Your task to perform on an android device: Open Chrome and go to the settings page Image 0: 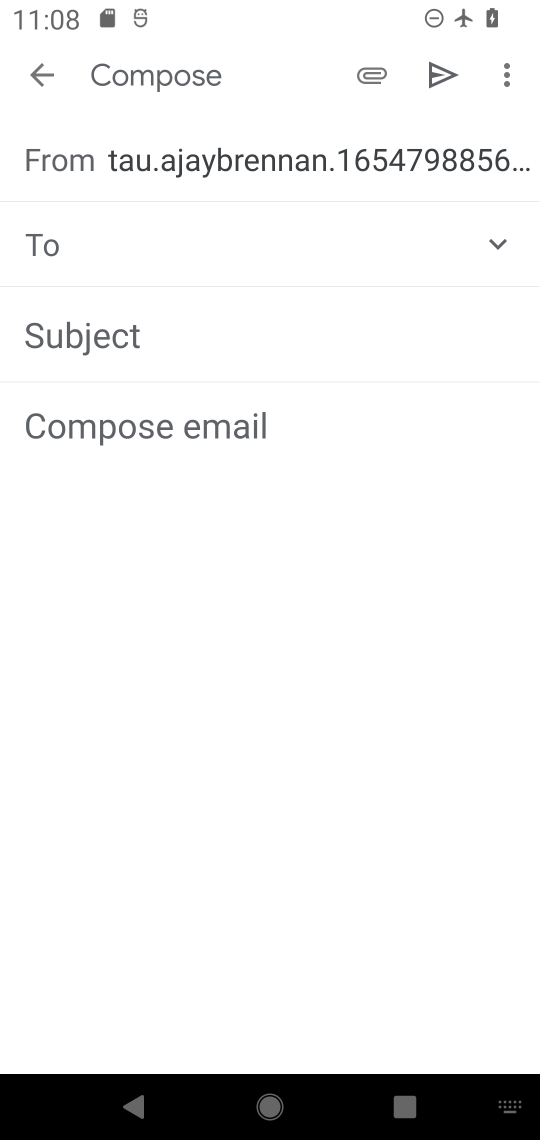
Step 0: press home button
Your task to perform on an android device: Open Chrome and go to the settings page Image 1: 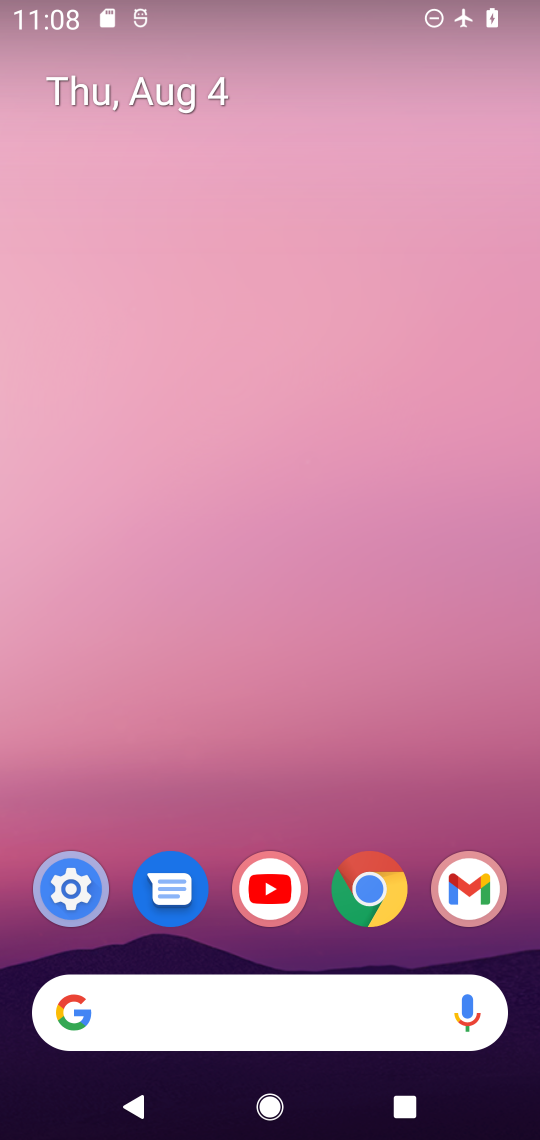
Step 1: drag from (374, 811) to (398, 292)
Your task to perform on an android device: Open Chrome and go to the settings page Image 2: 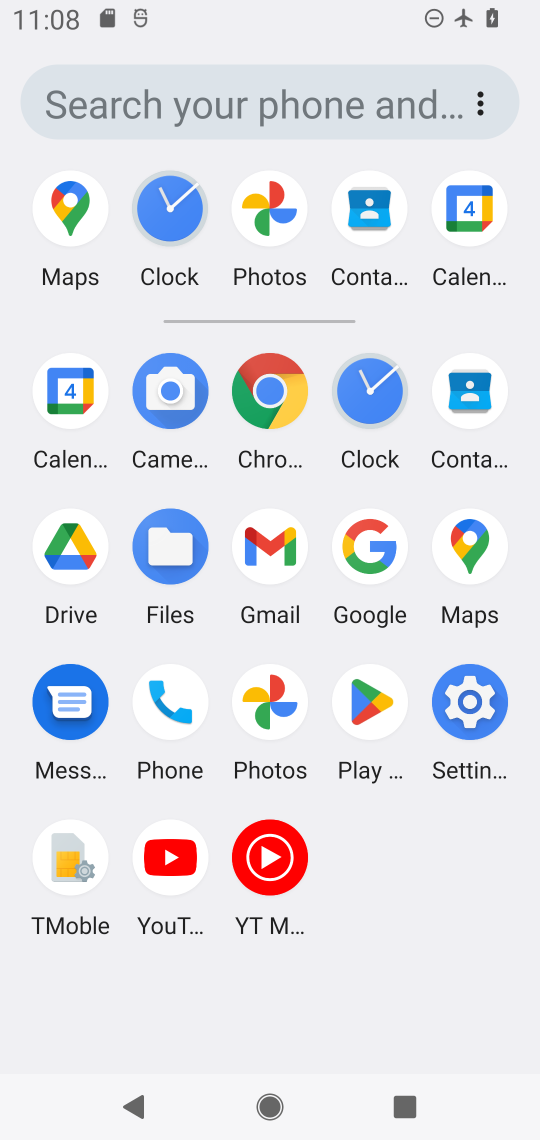
Step 2: click (275, 395)
Your task to perform on an android device: Open Chrome and go to the settings page Image 3: 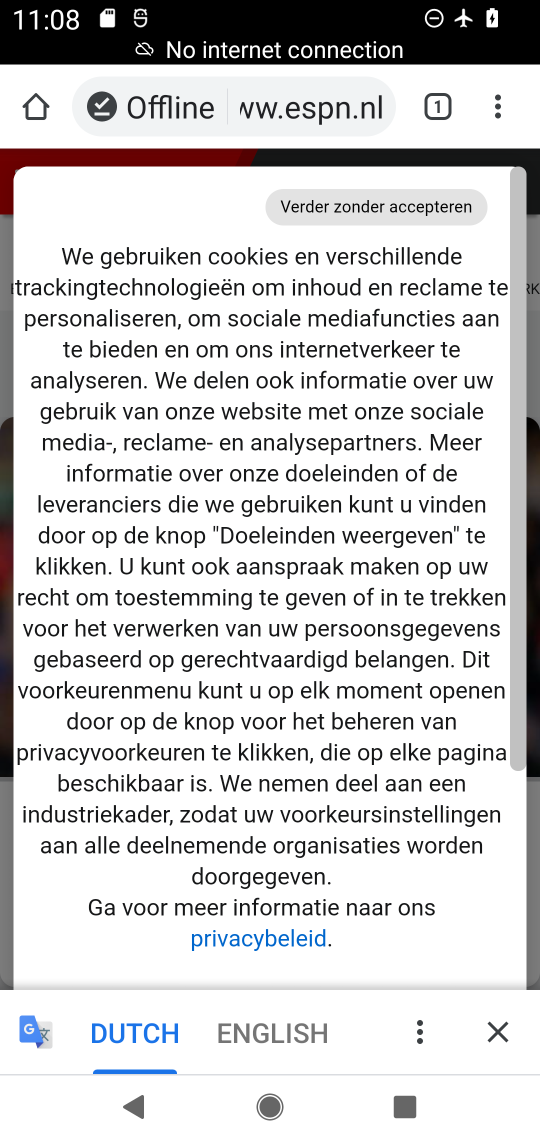
Step 3: click (498, 101)
Your task to perform on an android device: Open Chrome and go to the settings page Image 4: 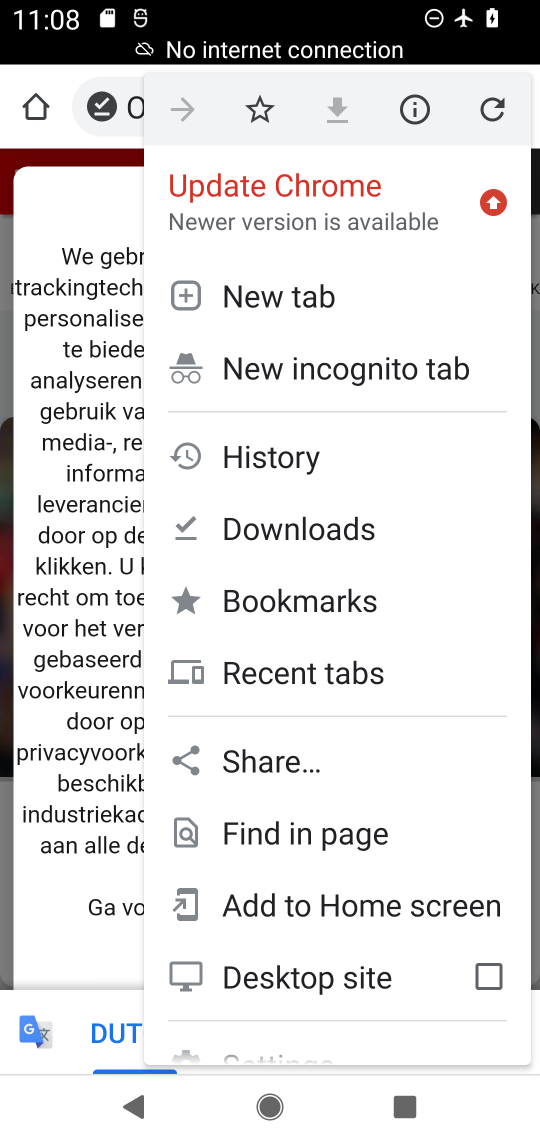
Step 4: drag from (443, 693) to (459, 517)
Your task to perform on an android device: Open Chrome and go to the settings page Image 5: 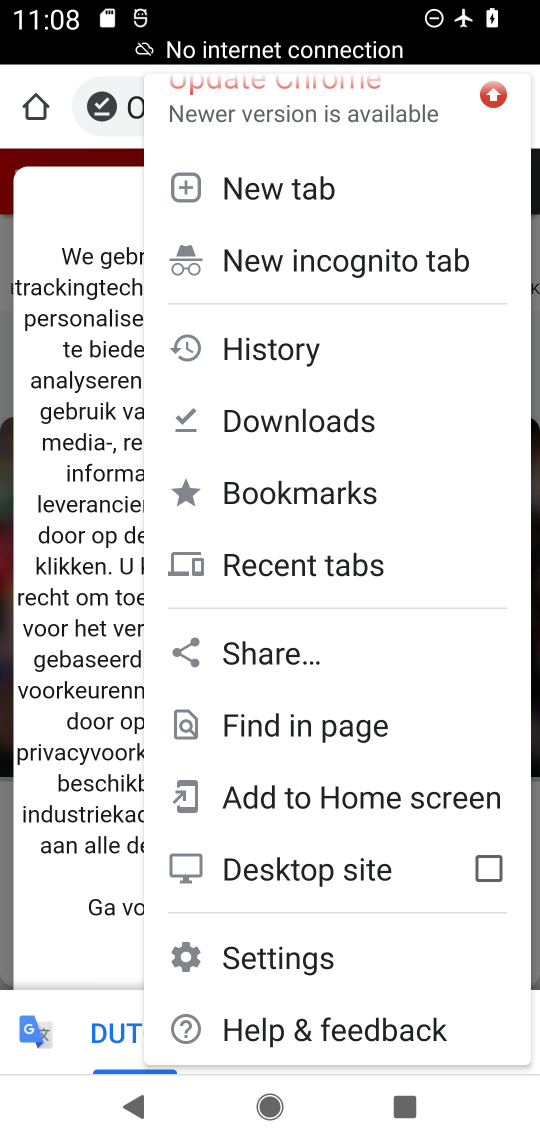
Step 5: click (319, 964)
Your task to perform on an android device: Open Chrome and go to the settings page Image 6: 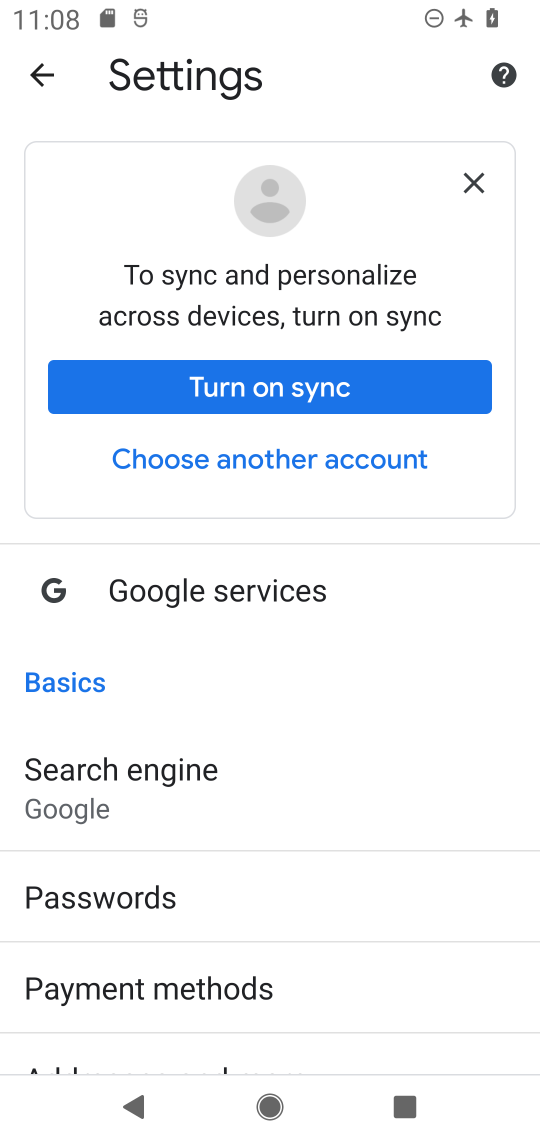
Step 6: task complete